Your task to perform on an android device: see tabs open on other devices in the chrome app Image 0: 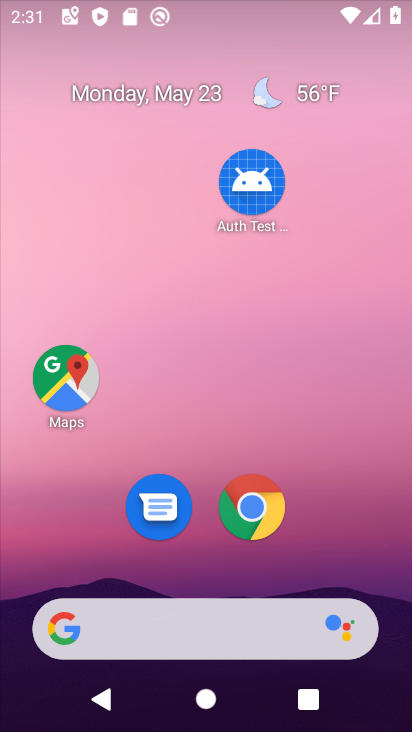
Step 0: click (27, 69)
Your task to perform on an android device: see tabs open on other devices in the chrome app Image 1: 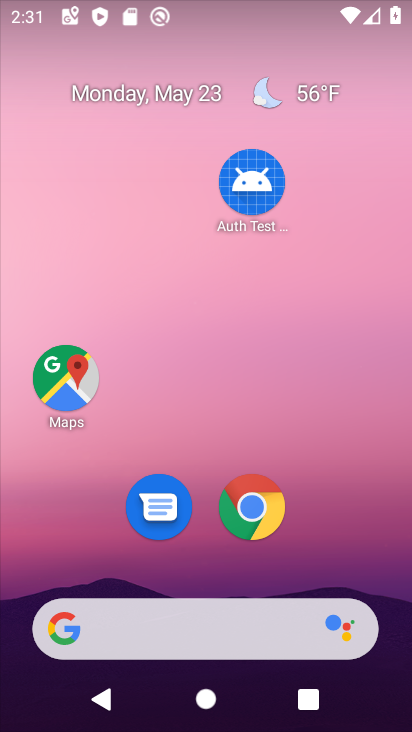
Step 1: drag from (278, 683) to (146, 97)
Your task to perform on an android device: see tabs open on other devices in the chrome app Image 2: 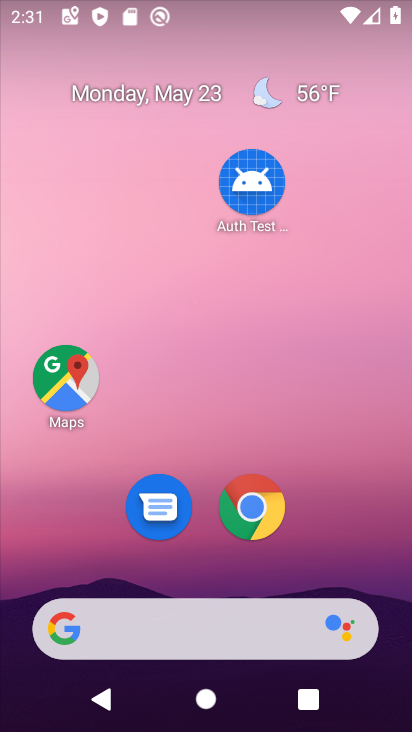
Step 2: drag from (259, 683) to (139, 119)
Your task to perform on an android device: see tabs open on other devices in the chrome app Image 3: 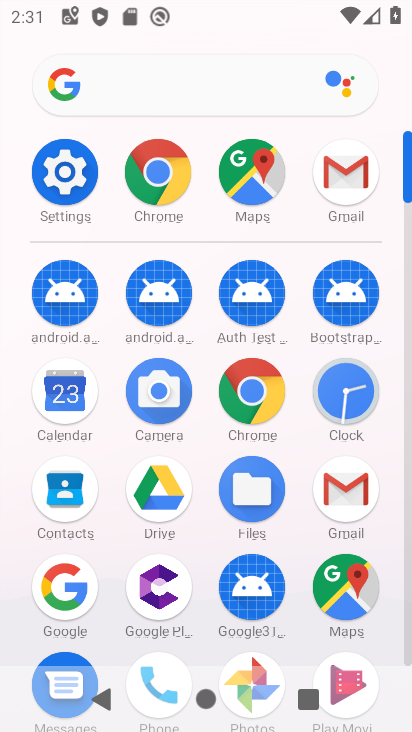
Step 3: click (251, 409)
Your task to perform on an android device: see tabs open on other devices in the chrome app Image 4: 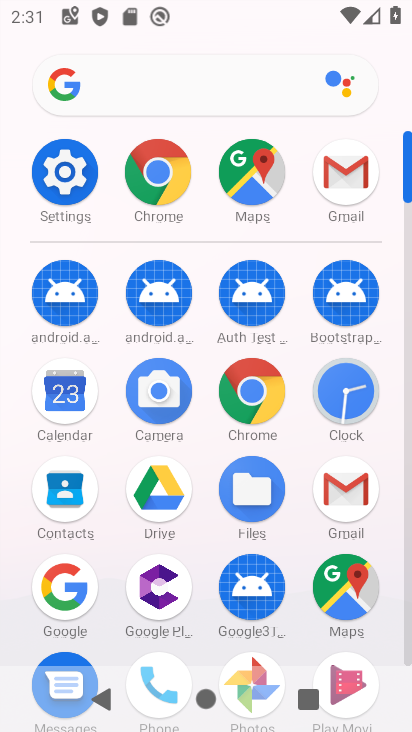
Step 4: click (255, 391)
Your task to perform on an android device: see tabs open on other devices in the chrome app Image 5: 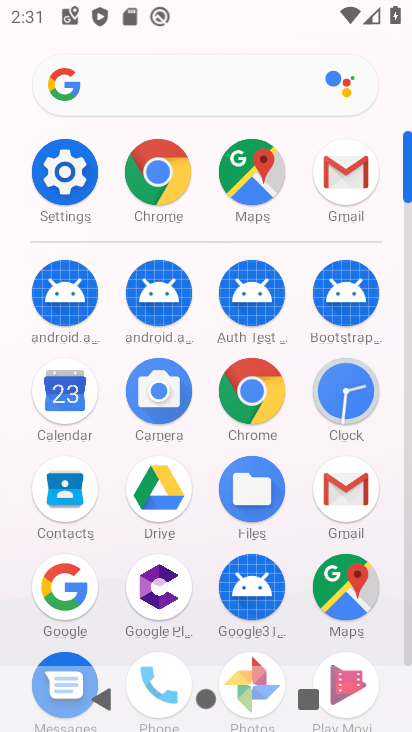
Step 5: click (255, 391)
Your task to perform on an android device: see tabs open on other devices in the chrome app Image 6: 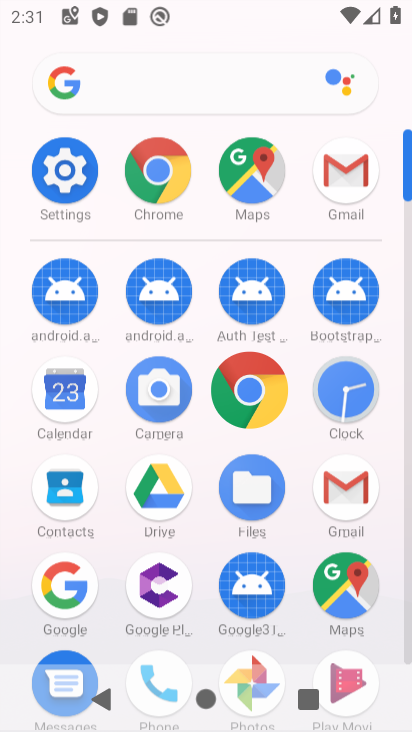
Step 6: click (255, 391)
Your task to perform on an android device: see tabs open on other devices in the chrome app Image 7: 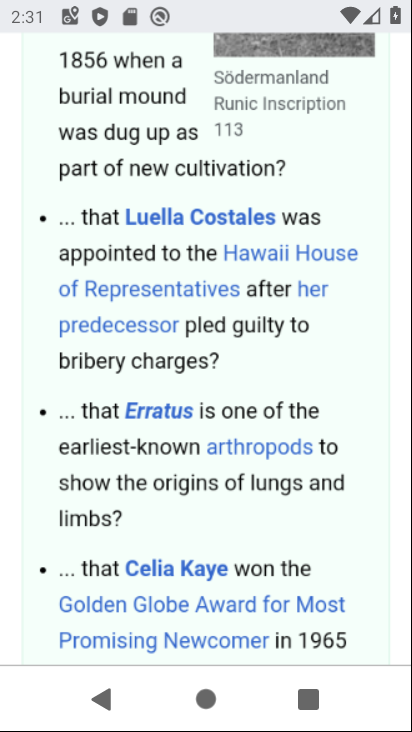
Step 7: click (255, 391)
Your task to perform on an android device: see tabs open on other devices in the chrome app Image 8: 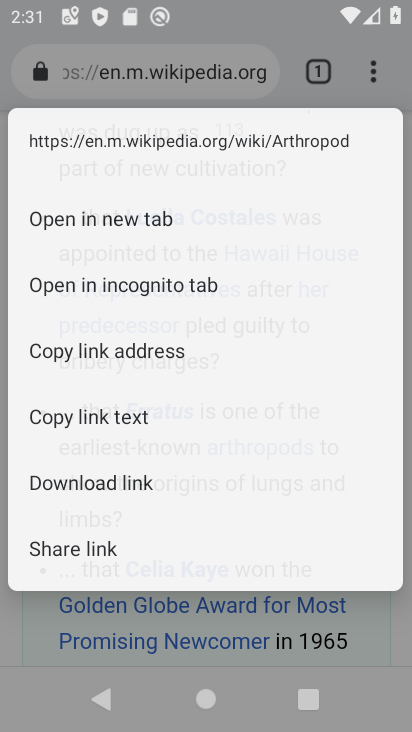
Step 8: drag from (215, 525) to (177, 186)
Your task to perform on an android device: see tabs open on other devices in the chrome app Image 9: 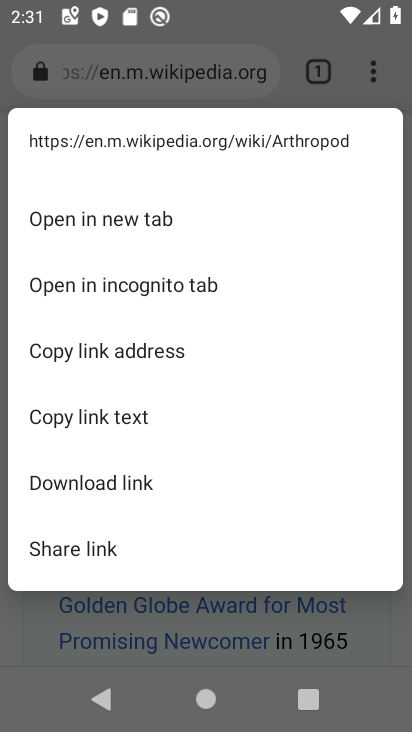
Step 9: drag from (187, 442) to (187, 166)
Your task to perform on an android device: see tabs open on other devices in the chrome app Image 10: 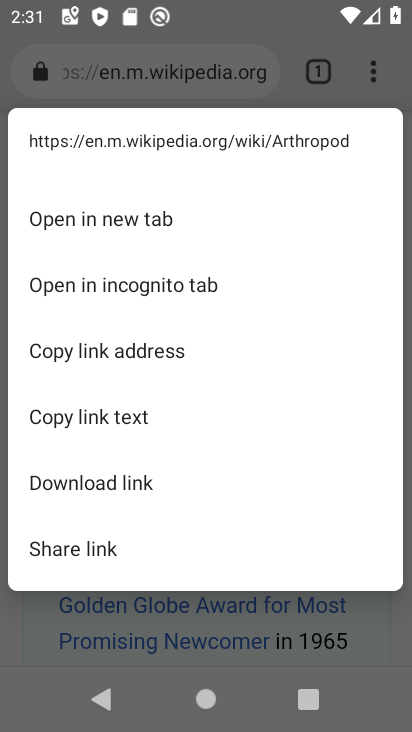
Step 10: click (174, 618)
Your task to perform on an android device: see tabs open on other devices in the chrome app Image 11: 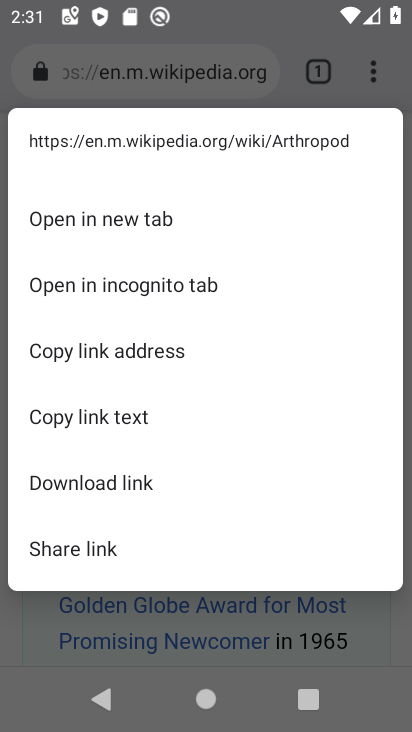
Step 11: click (382, 633)
Your task to perform on an android device: see tabs open on other devices in the chrome app Image 12: 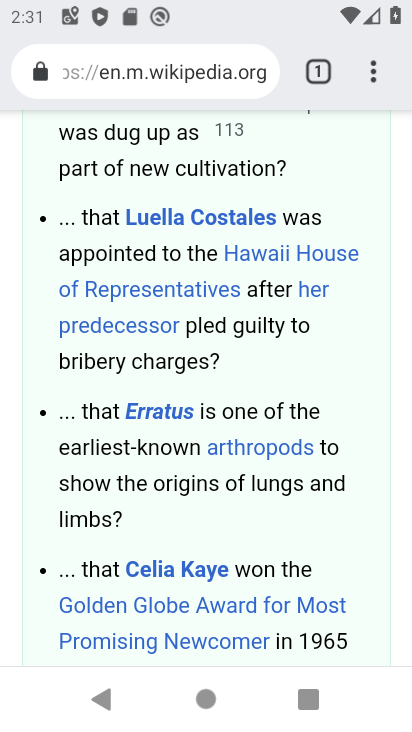
Step 12: drag from (239, 529) to (193, 120)
Your task to perform on an android device: see tabs open on other devices in the chrome app Image 13: 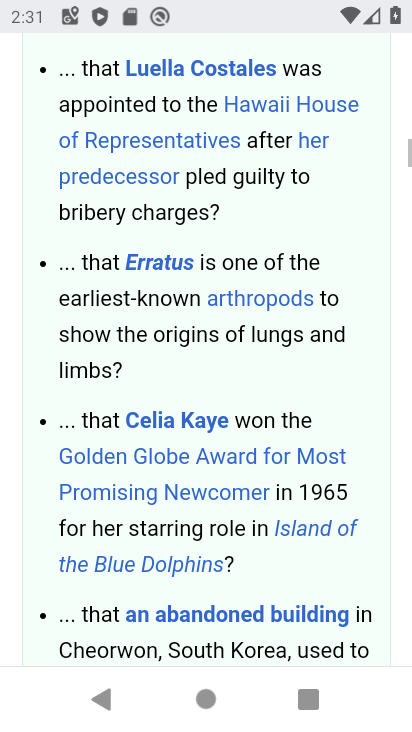
Step 13: drag from (237, 240) to (225, 164)
Your task to perform on an android device: see tabs open on other devices in the chrome app Image 14: 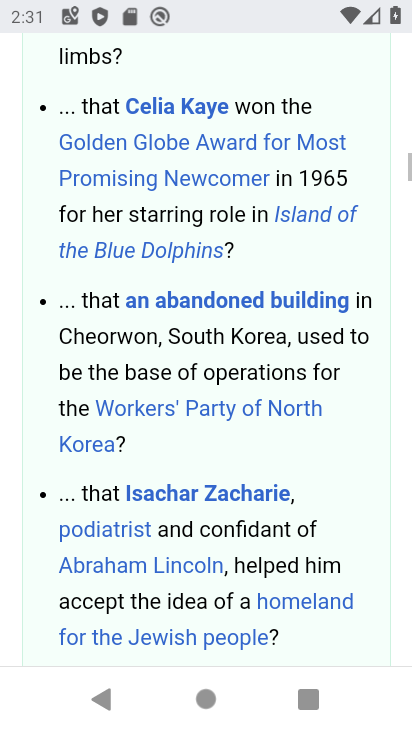
Step 14: drag from (175, 189) to (246, 176)
Your task to perform on an android device: see tabs open on other devices in the chrome app Image 15: 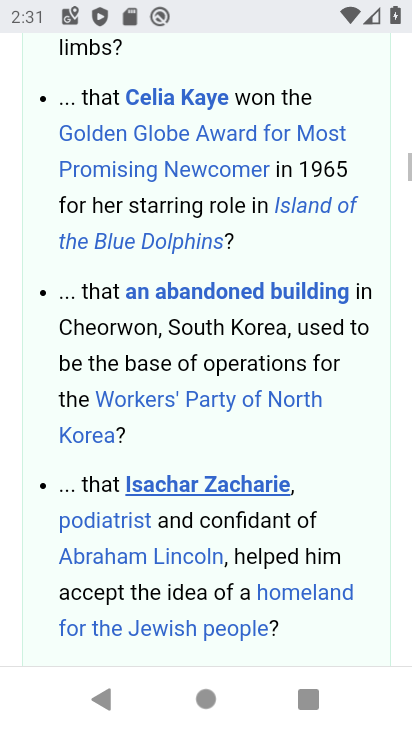
Step 15: click (195, 195)
Your task to perform on an android device: see tabs open on other devices in the chrome app Image 16: 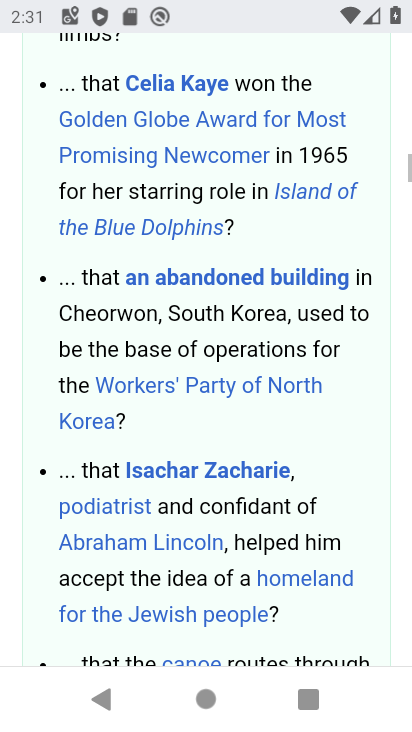
Step 16: drag from (232, 540) to (209, 169)
Your task to perform on an android device: see tabs open on other devices in the chrome app Image 17: 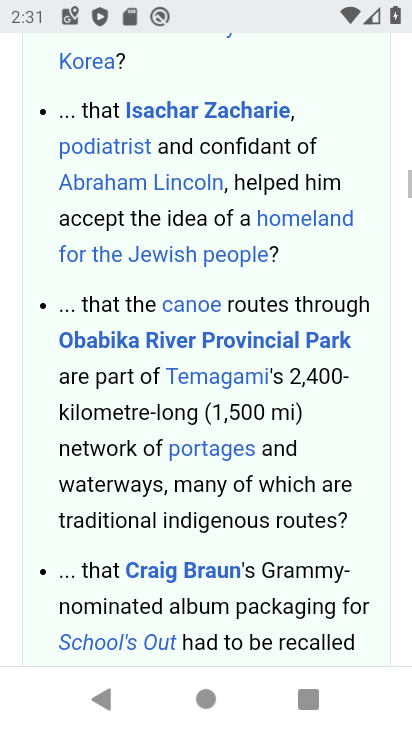
Step 17: drag from (256, 515) to (224, 120)
Your task to perform on an android device: see tabs open on other devices in the chrome app Image 18: 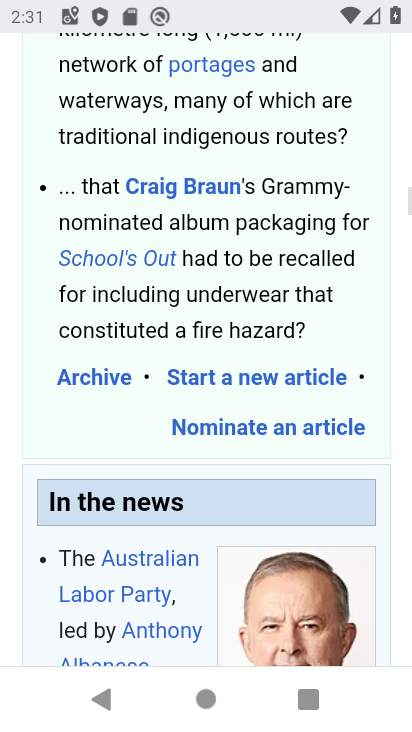
Step 18: drag from (265, 390) to (257, 145)
Your task to perform on an android device: see tabs open on other devices in the chrome app Image 19: 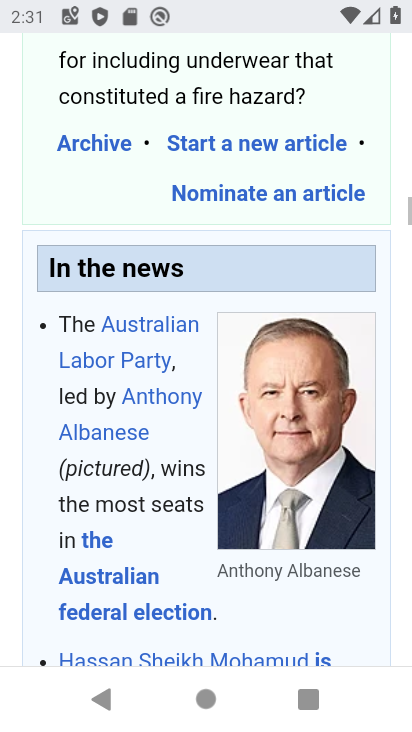
Step 19: drag from (278, 447) to (249, 154)
Your task to perform on an android device: see tabs open on other devices in the chrome app Image 20: 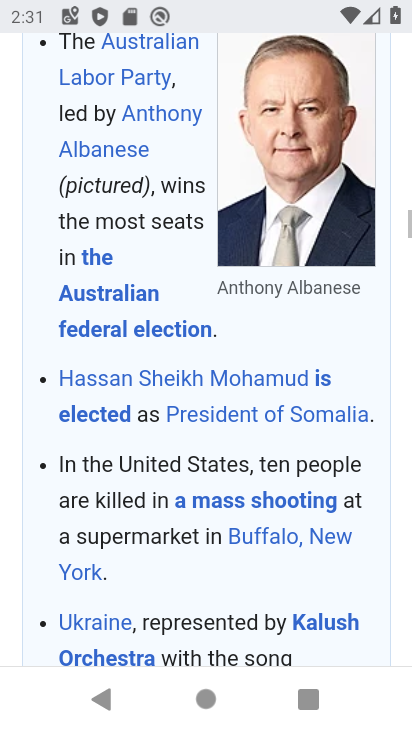
Step 20: drag from (251, 390) to (227, 127)
Your task to perform on an android device: see tabs open on other devices in the chrome app Image 21: 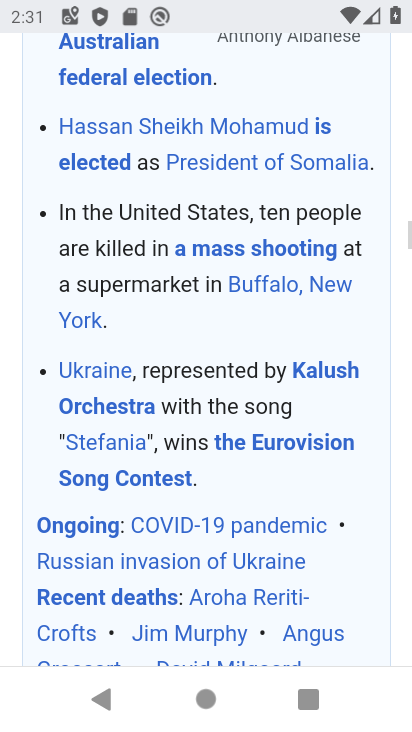
Step 21: drag from (238, 428) to (233, 212)
Your task to perform on an android device: see tabs open on other devices in the chrome app Image 22: 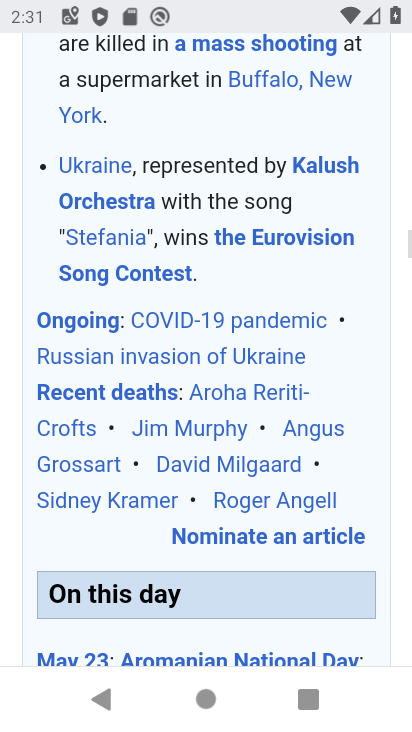
Step 22: drag from (245, 432) to (241, 130)
Your task to perform on an android device: see tabs open on other devices in the chrome app Image 23: 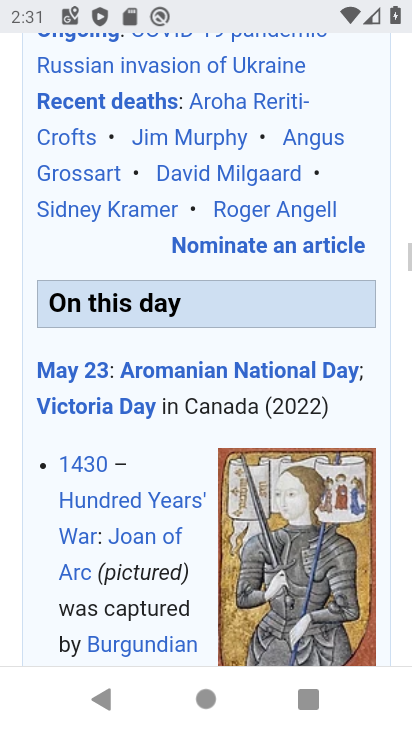
Step 23: drag from (248, 382) to (223, 97)
Your task to perform on an android device: see tabs open on other devices in the chrome app Image 24: 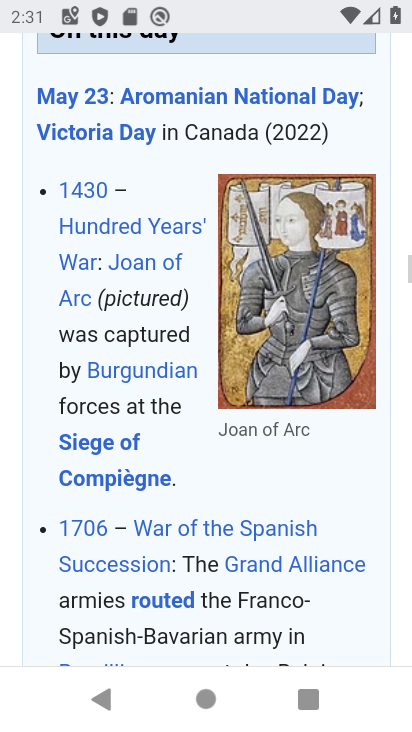
Step 24: drag from (232, 423) to (199, 187)
Your task to perform on an android device: see tabs open on other devices in the chrome app Image 25: 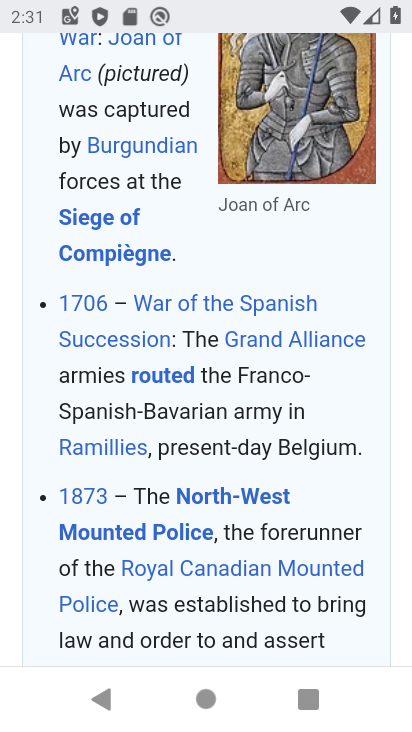
Step 25: drag from (220, 484) to (218, 140)
Your task to perform on an android device: see tabs open on other devices in the chrome app Image 26: 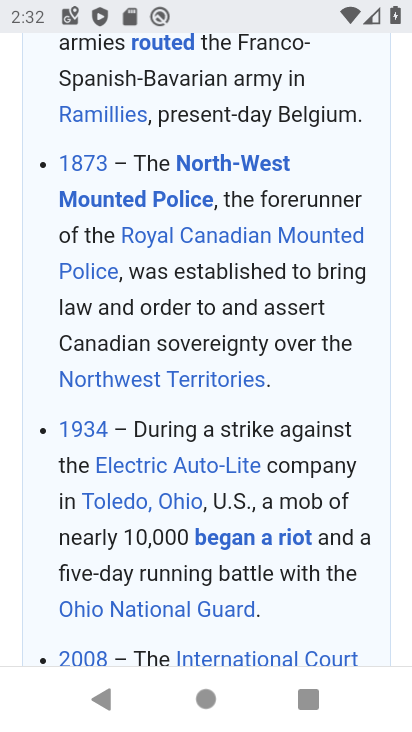
Step 26: drag from (223, 381) to (216, 554)
Your task to perform on an android device: see tabs open on other devices in the chrome app Image 27: 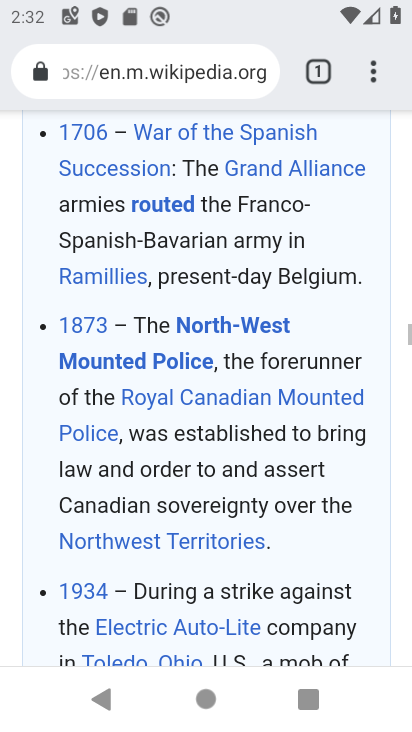
Step 27: drag from (202, 257) to (204, 553)
Your task to perform on an android device: see tabs open on other devices in the chrome app Image 28: 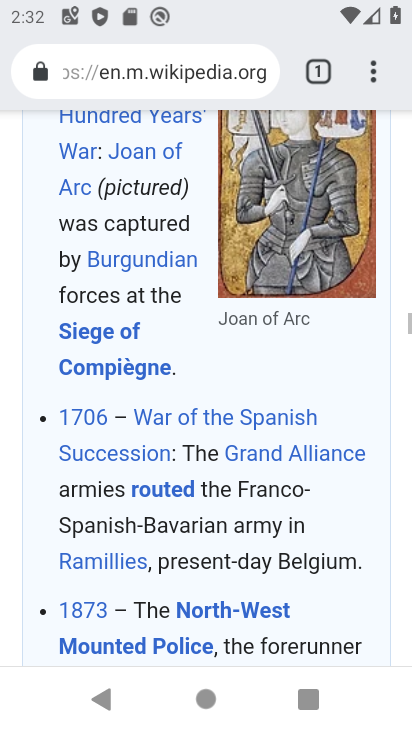
Step 28: click (185, 550)
Your task to perform on an android device: see tabs open on other devices in the chrome app Image 29: 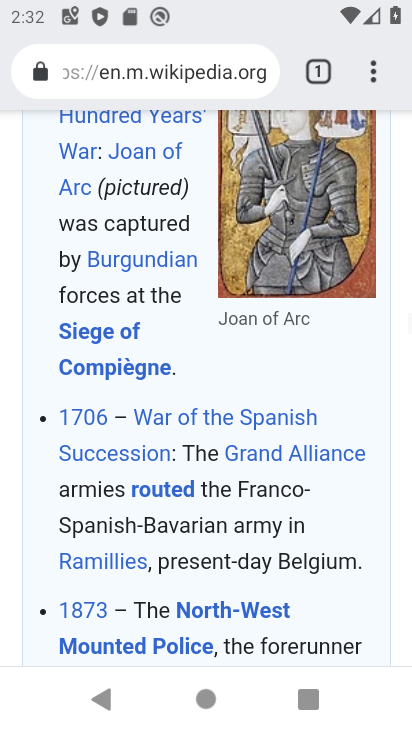
Step 29: drag from (194, 258) to (204, 557)
Your task to perform on an android device: see tabs open on other devices in the chrome app Image 30: 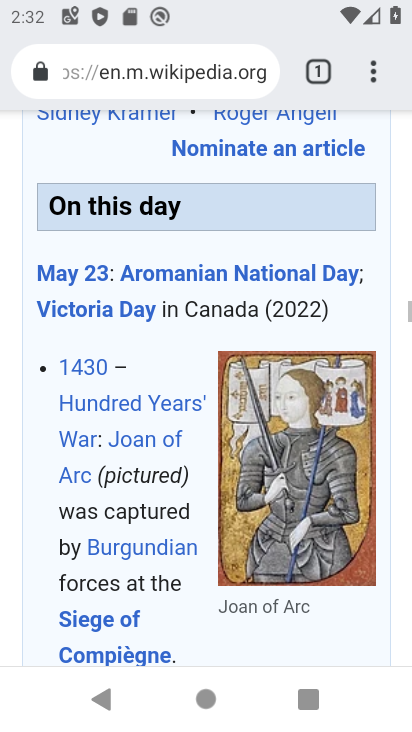
Step 30: drag from (182, 244) to (217, 528)
Your task to perform on an android device: see tabs open on other devices in the chrome app Image 31: 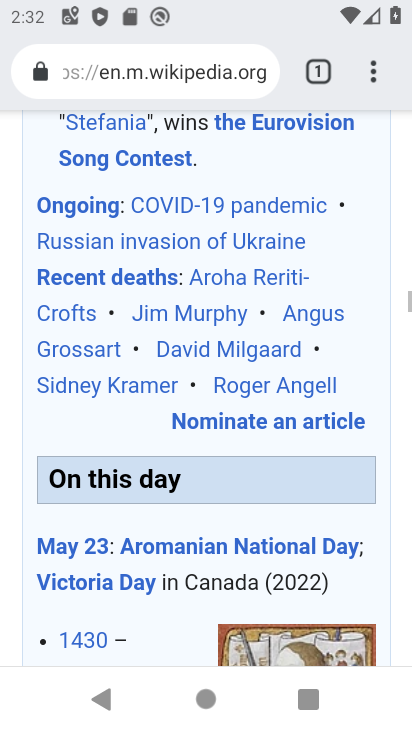
Step 31: drag from (202, 210) to (210, 565)
Your task to perform on an android device: see tabs open on other devices in the chrome app Image 32: 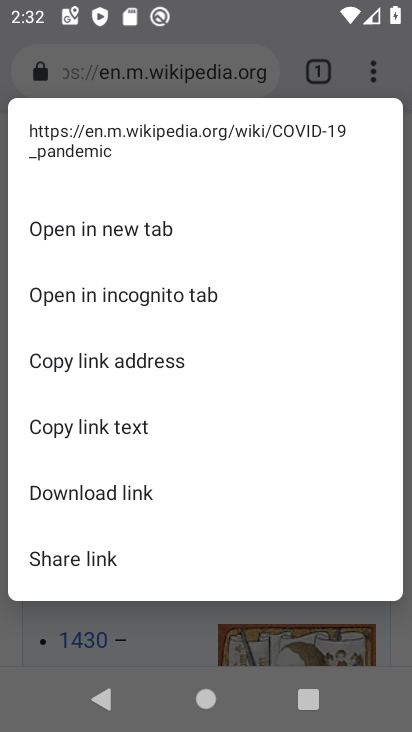
Step 32: drag from (187, 421) to (187, 585)
Your task to perform on an android device: see tabs open on other devices in the chrome app Image 33: 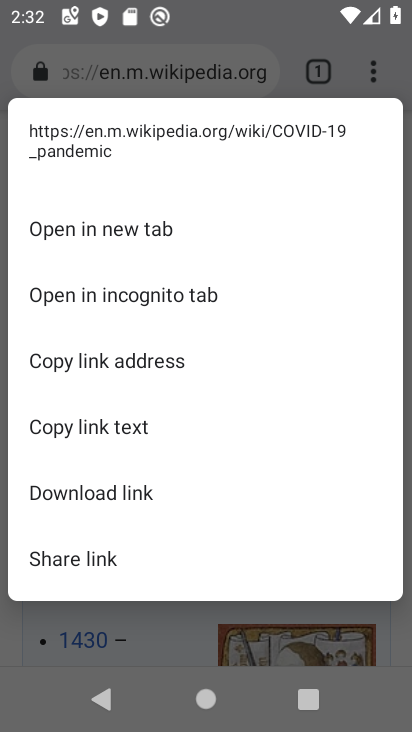
Step 33: drag from (145, 187) to (215, 654)
Your task to perform on an android device: see tabs open on other devices in the chrome app Image 34: 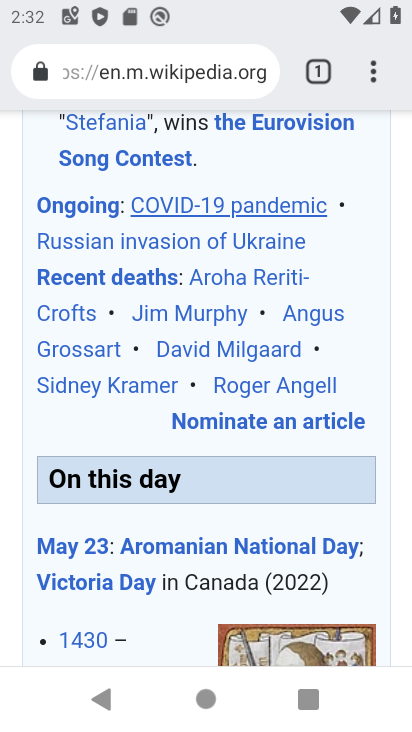
Step 34: click (122, 637)
Your task to perform on an android device: see tabs open on other devices in the chrome app Image 35: 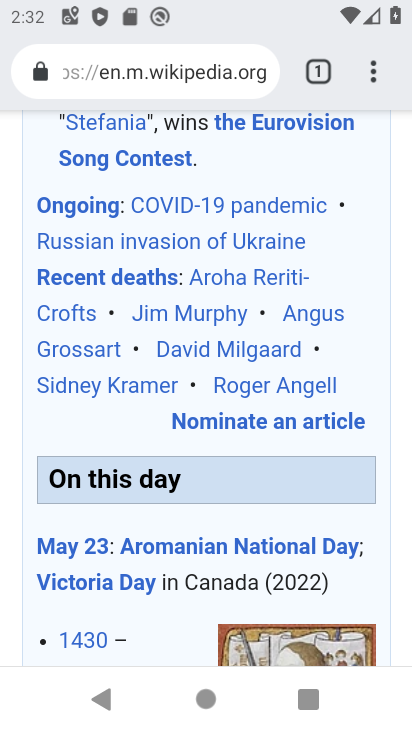
Step 35: drag from (372, 68) to (110, 341)
Your task to perform on an android device: see tabs open on other devices in the chrome app Image 36: 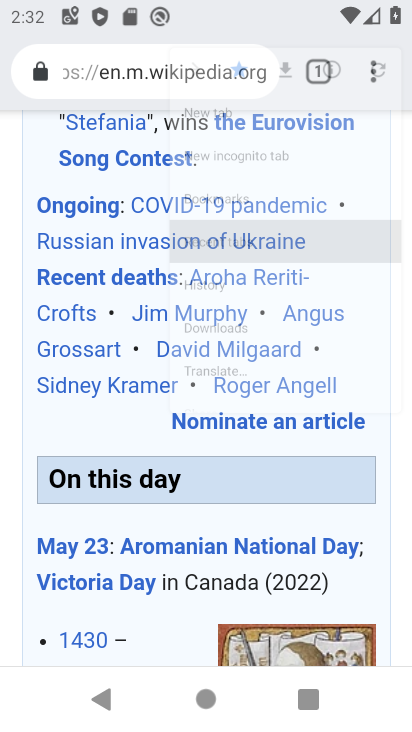
Step 36: click (111, 343)
Your task to perform on an android device: see tabs open on other devices in the chrome app Image 37: 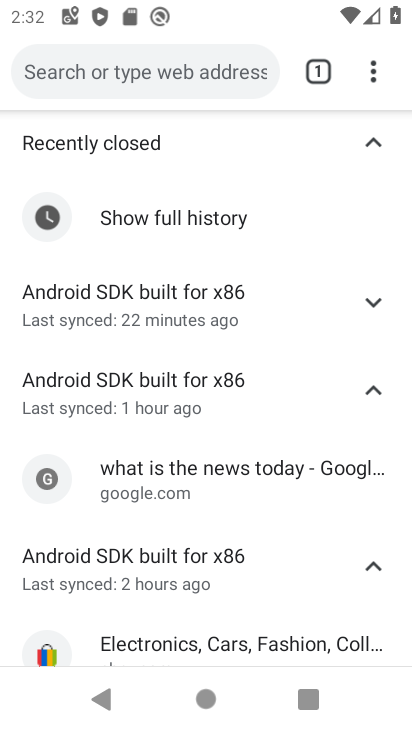
Step 37: drag from (258, 572) to (195, 145)
Your task to perform on an android device: see tabs open on other devices in the chrome app Image 38: 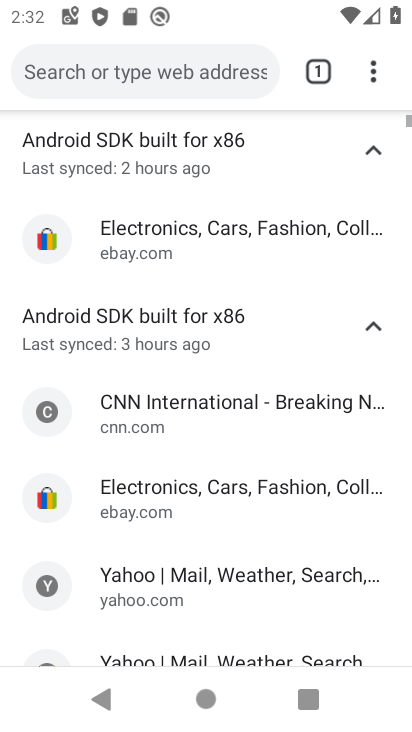
Step 38: drag from (228, 517) to (234, 147)
Your task to perform on an android device: see tabs open on other devices in the chrome app Image 39: 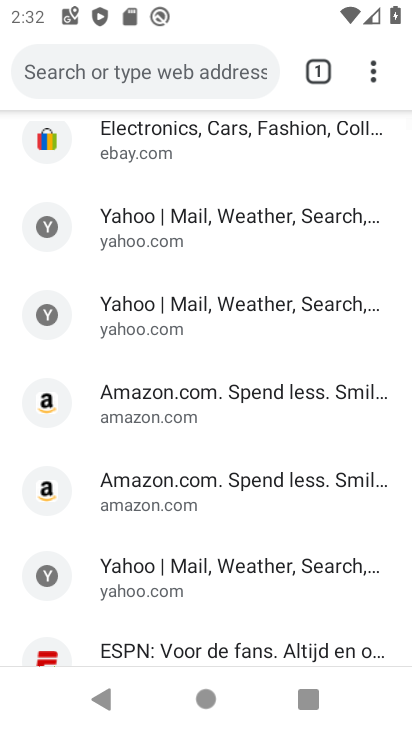
Step 39: click (197, 137)
Your task to perform on an android device: see tabs open on other devices in the chrome app Image 40: 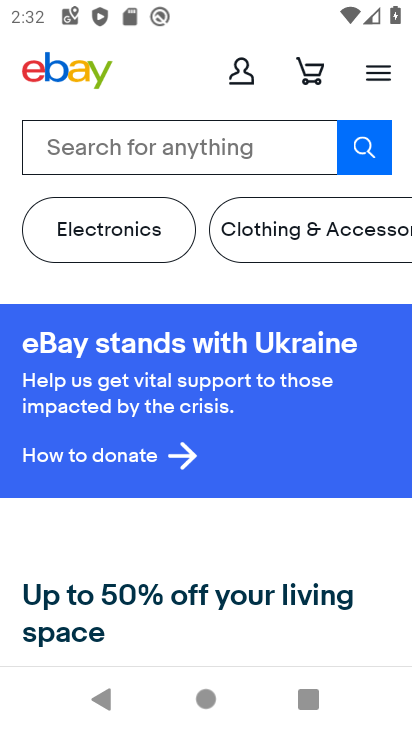
Step 40: press back button
Your task to perform on an android device: see tabs open on other devices in the chrome app Image 41: 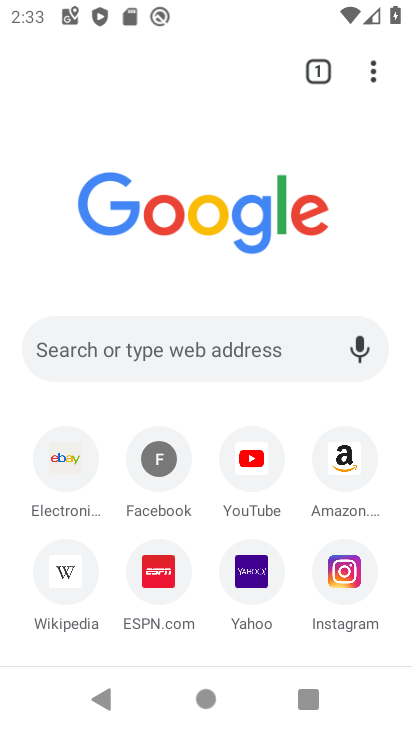
Step 41: click (267, 138)
Your task to perform on an android device: see tabs open on other devices in the chrome app Image 42: 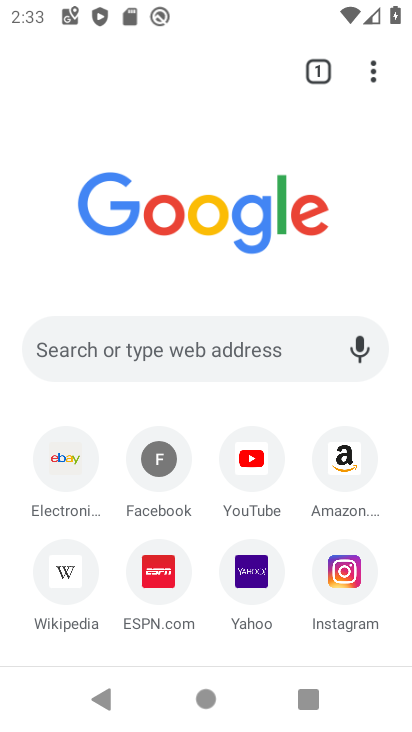
Step 42: click (373, 71)
Your task to perform on an android device: see tabs open on other devices in the chrome app Image 43: 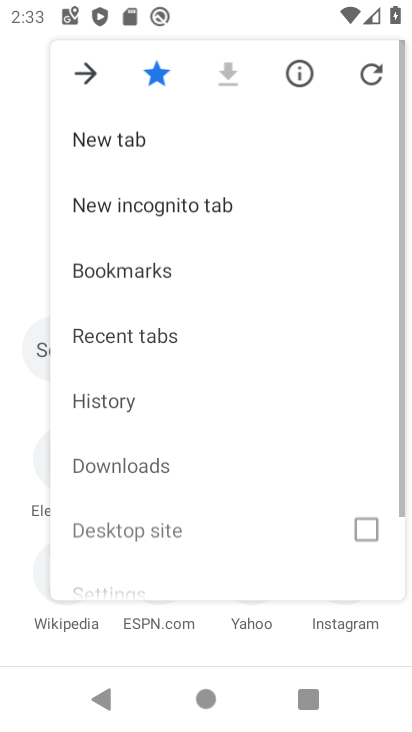
Step 43: click (373, 71)
Your task to perform on an android device: see tabs open on other devices in the chrome app Image 44: 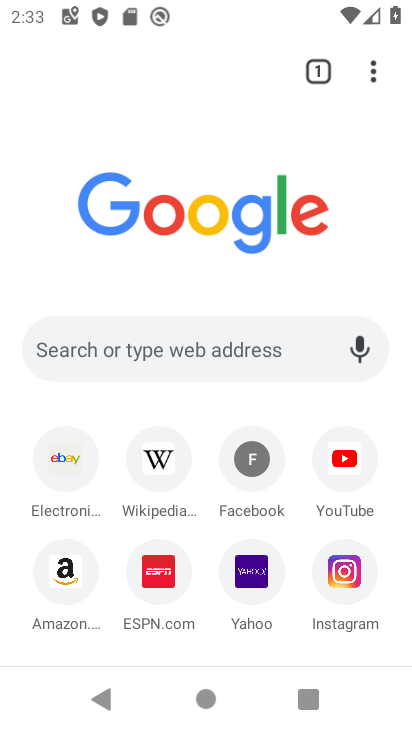
Step 44: click (365, 74)
Your task to perform on an android device: see tabs open on other devices in the chrome app Image 45: 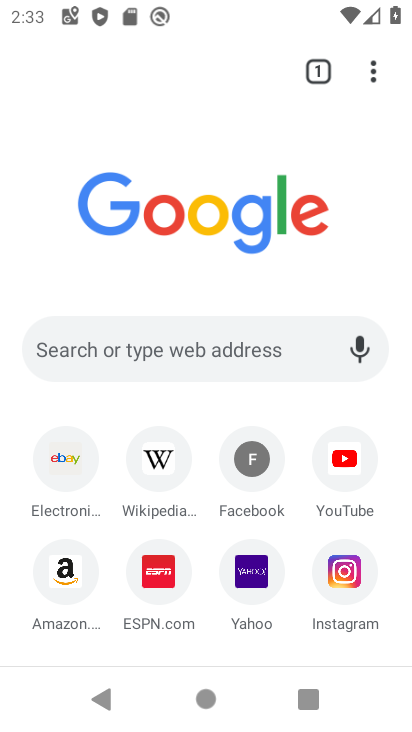
Step 45: click (367, 77)
Your task to perform on an android device: see tabs open on other devices in the chrome app Image 46: 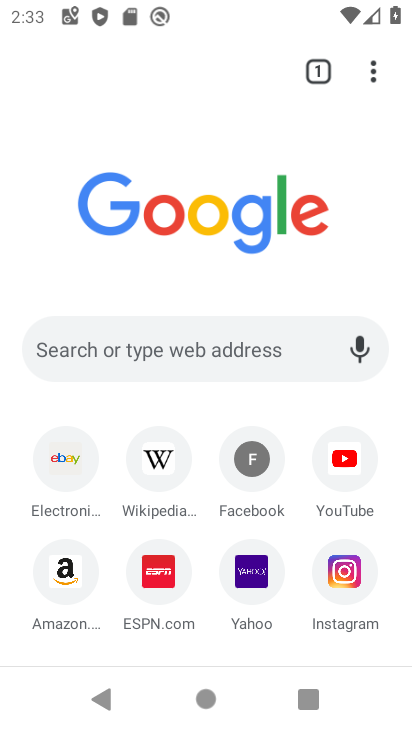
Step 46: drag from (368, 73) to (108, 294)
Your task to perform on an android device: see tabs open on other devices in the chrome app Image 47: 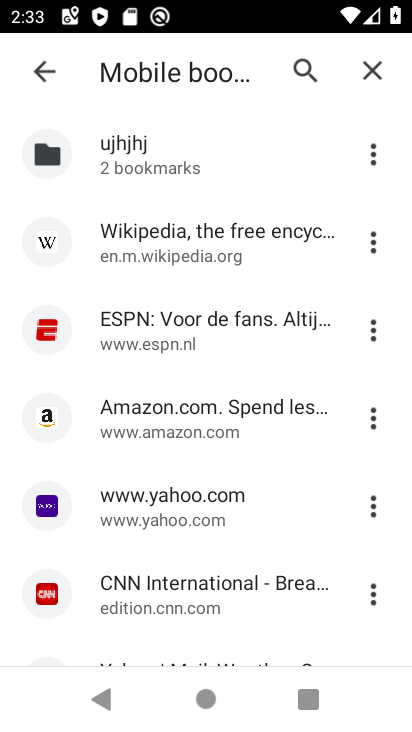
Step 47: click (40, 73)
Your task to perform on an android device: see tabs open on other devices in the chrome app Image 48: 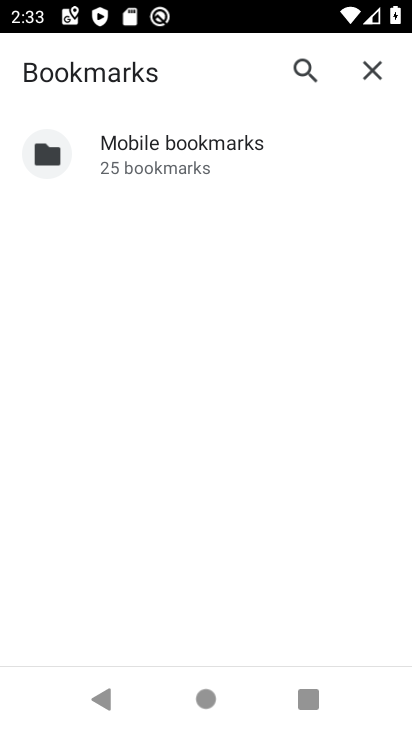
Step 48: click (367, 68)
Your task to perform on an android device: see tabs open on other devices in the chrome app Image 49: 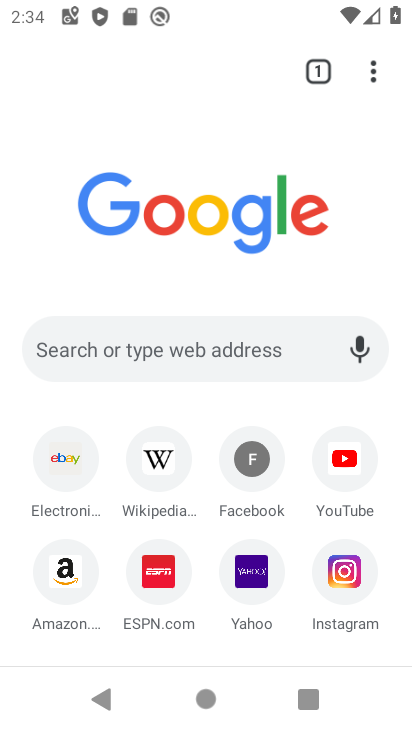
Step 49: drag from (373, 86) to (103, 337)
Your task to perform on an android device: see tabs open on other devices in the chrome app Image 50: 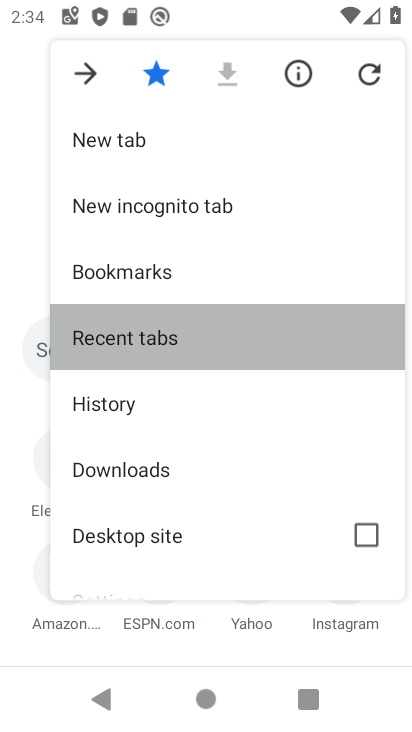
Step 50: click (103, 337)
Your task to perform on an android device: see tabs open on other devices in the chrome app Image 51: 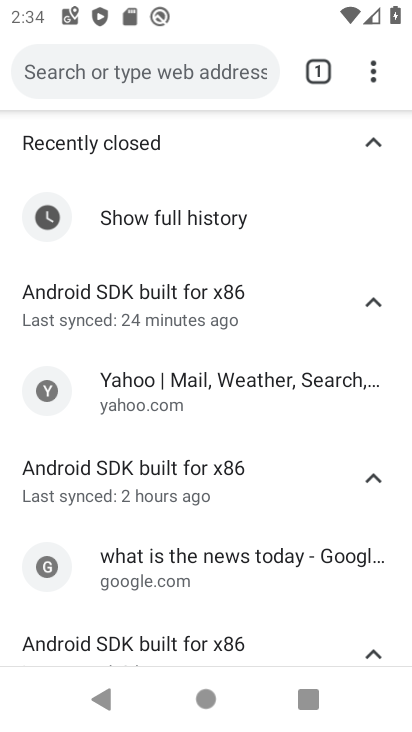
Step 51: task complete